Your task to perform on an android device: Open Android settings Image 0: 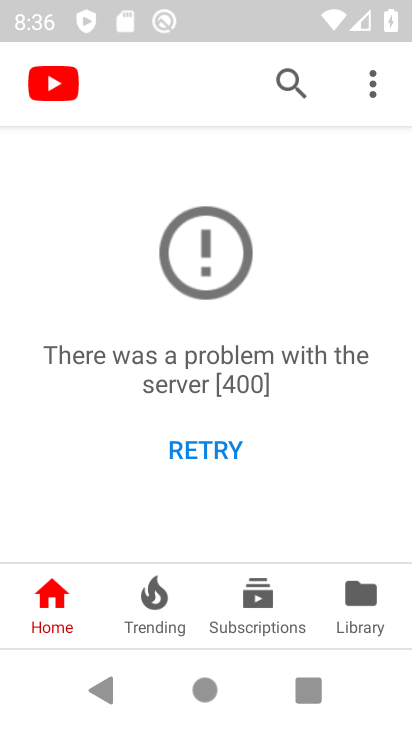
Step 0: press home button
Your task to perform on an android device: Open Android settings Image 1: 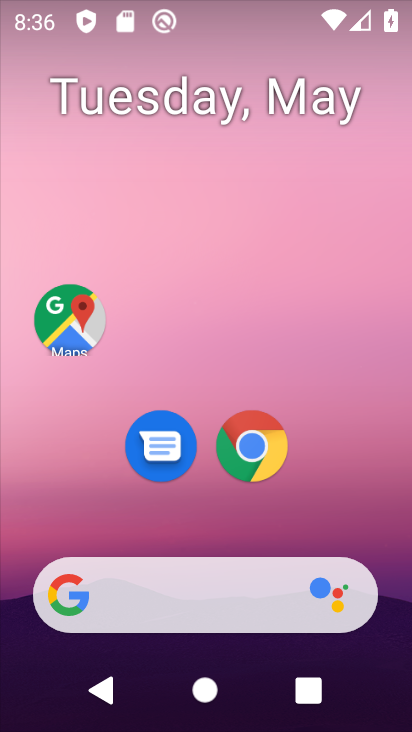
Step 1: drag from (379, 564) to (366, 259)
Your task to perform on an android device: Open Android settings Image 2: 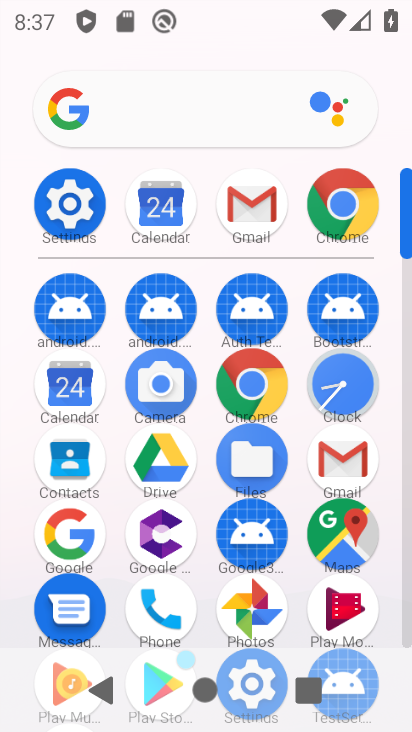
Step 2: drag from (386, 576) to (403, 305)
Your task to perform on an android device: Open Android settings Image 3: 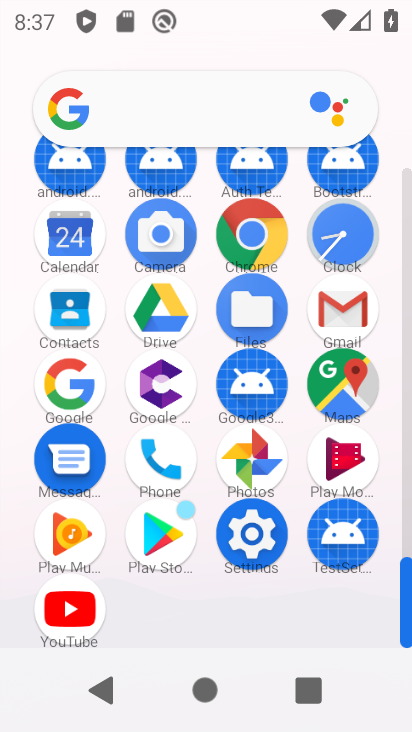
Step 3: click (235, 566)
Your task to perform on an android device: Open Android settings Image 4: 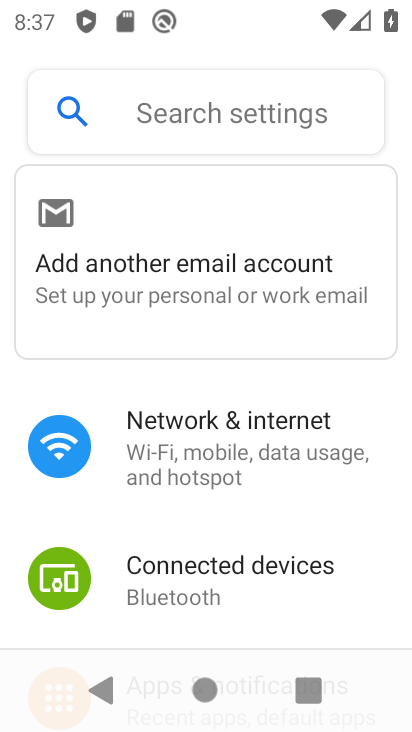
Step 4: drag from (349, 587) to (374, 471)
Your task to perform on an android device: Open Android settings Image 5: 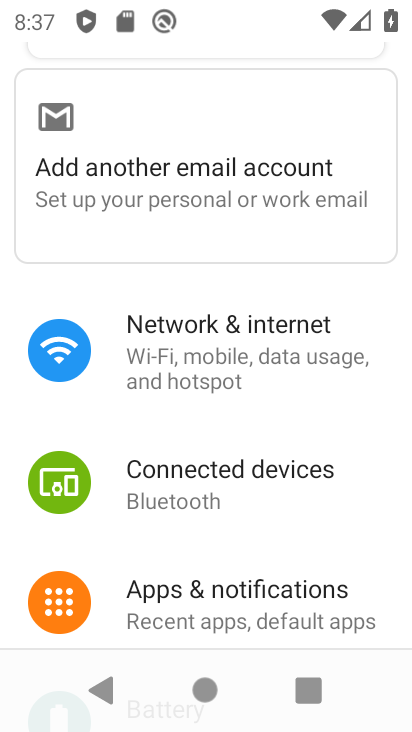
Step 5: drag from (379, 589) to (391, 461)
Your task to perform on an android device: Open Android settings Image 6: 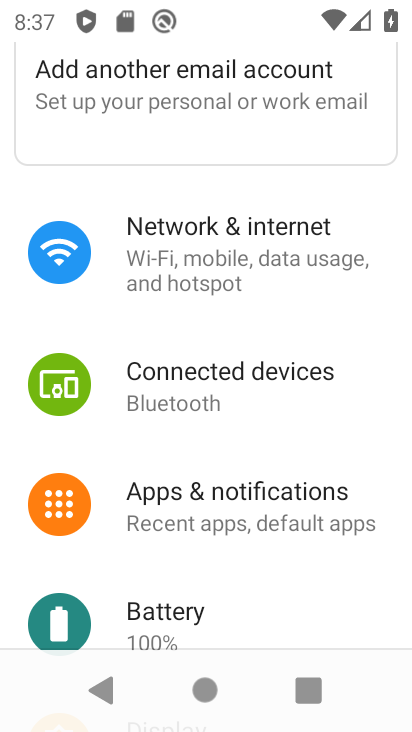
Step 6: drag from (386, 569) to (378, 440)
Your task to perform on an android device: Open Android settings Image 7: 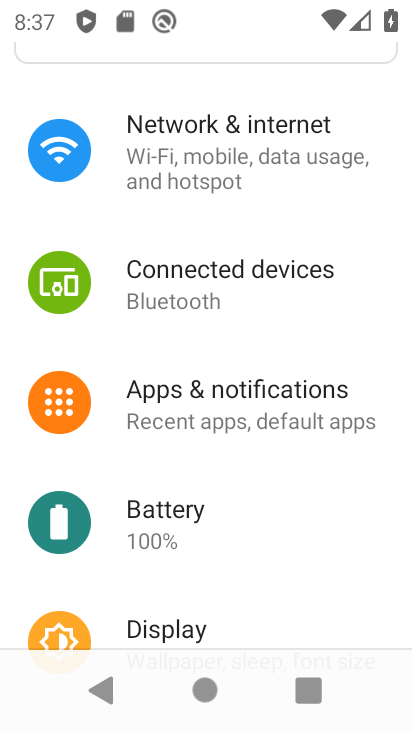
Step 7: drag from (355, 581) to (355, 484)
Your task to perform on an android device: Open Android settings Image 8: 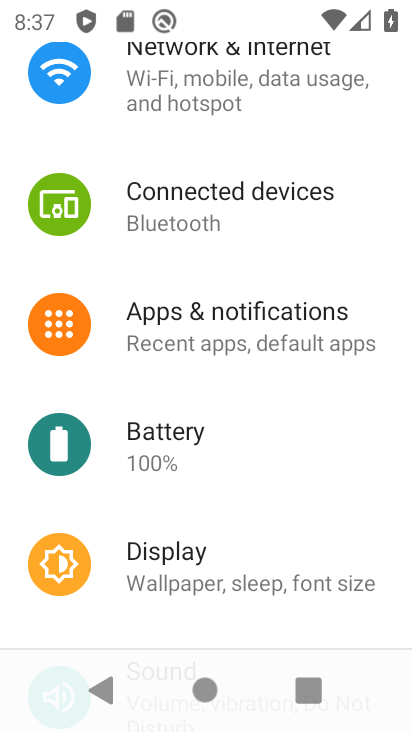
Step 8: drag from (357, 607) to (364, 468)
Your task to perform on an android device: Open Android settings Image 9: 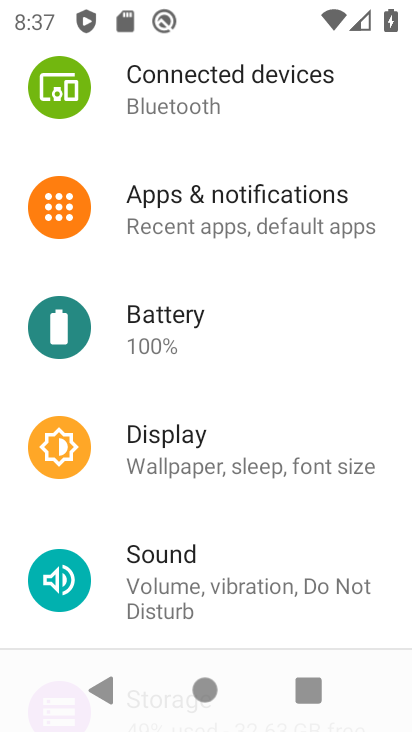
Step 9: drag from (382, 614) to (382, 510)
Your task to perform on an android device: Open Android settings Image 10: 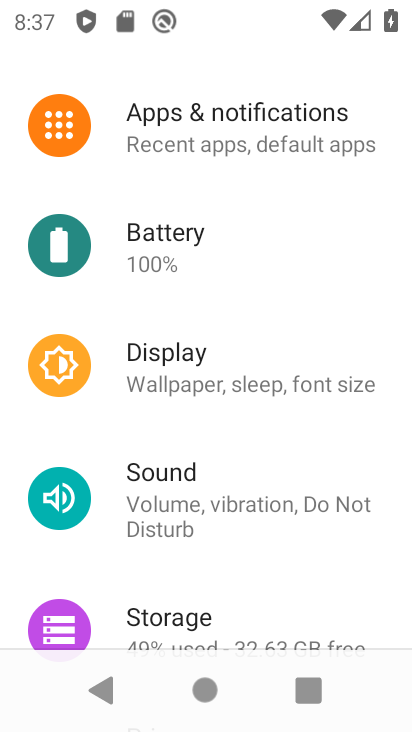
Step 10: drag from (353, 599) to (353, 480)
Your task to perform on an android device: Open Android settings Image 11: 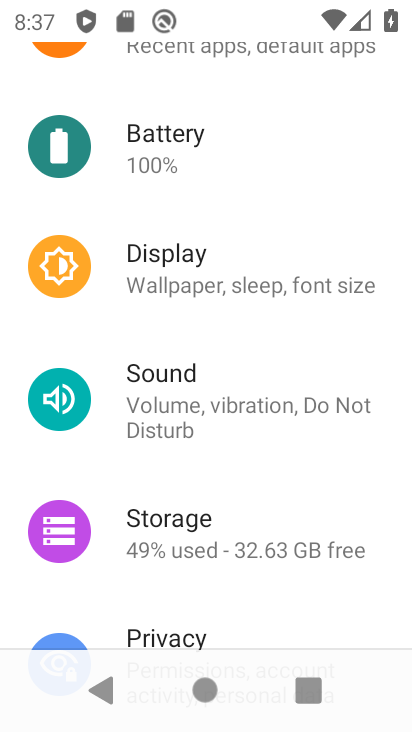
Step 11: drag from (376, 623) to (386, 508)
Your task to perform on an android device: Open Android settings Image 12: 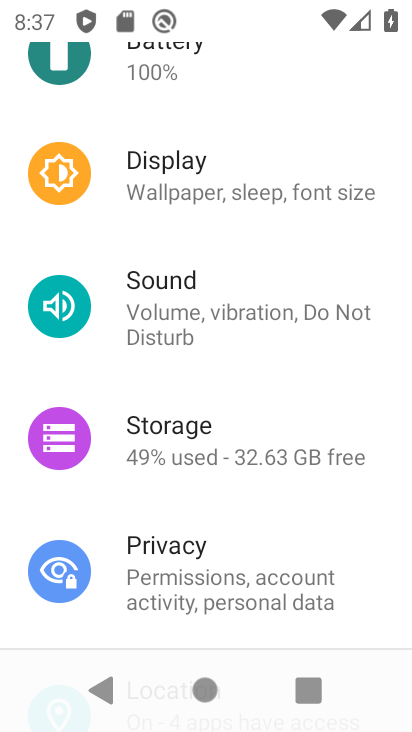
Step 12: drag from (353, 533) to (371, 434)
Your task to perform on an android device: Open Android settings Image 13: 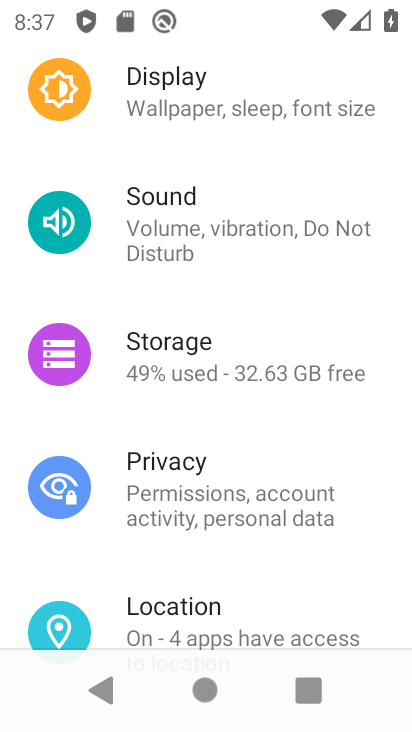
Step 13: drag from (368, 561) to (381, 466)
Your task to perform on an android device: Open Android settings Image 14: 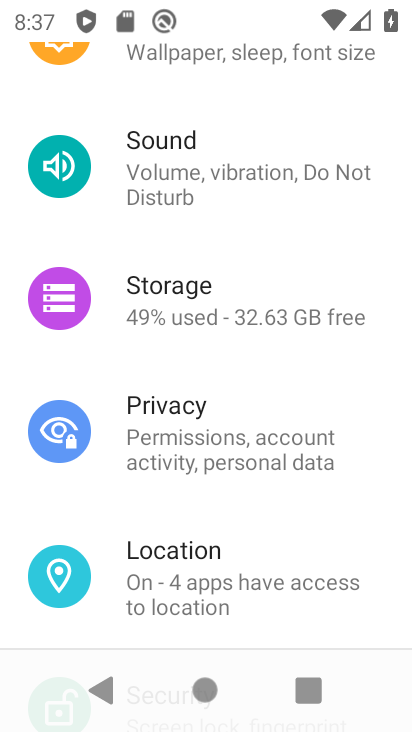
Step 14: drag from (375, 571) to (367, 479)
Your task to perform on an android device: Open Android settings Image 15: 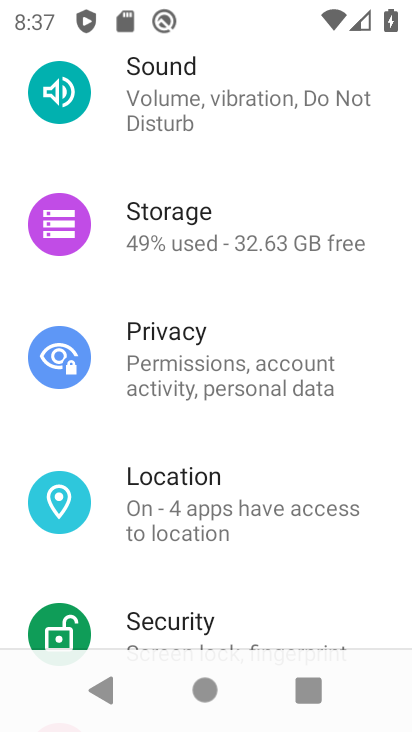
Step 15: drag from (361, 585) to (364, 497)
Your task to perform on an android device: Open Android settings Image 16: 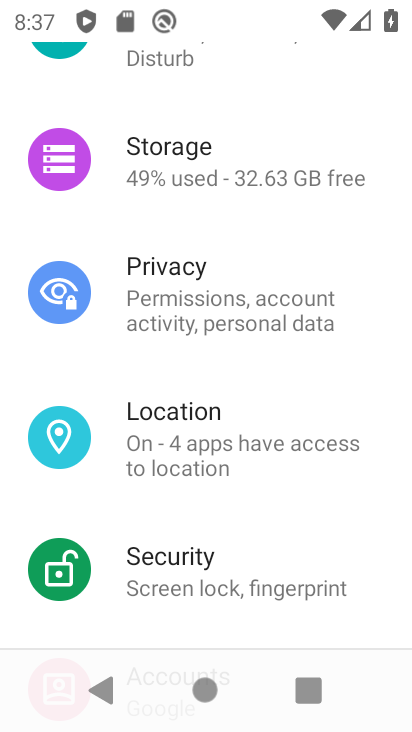
Step 16: drag from (366, 609) to (374, 499)
Your task to perform on an android device: Open Android settings Image 17: 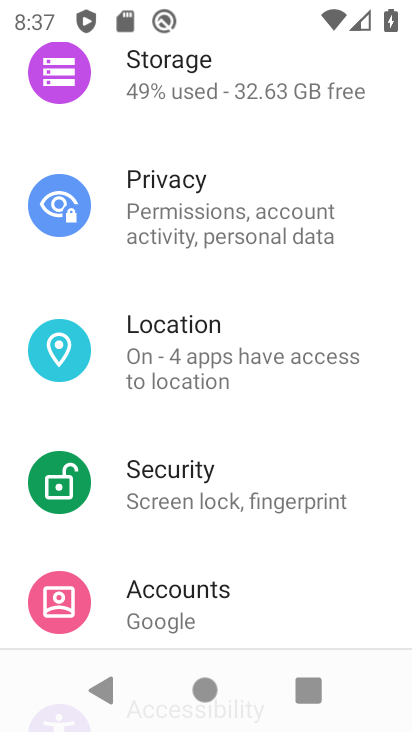
Step 17: drag from (362, 590) to (374, 479)
Your task to perform on an android device: Open Android settings Image 18: 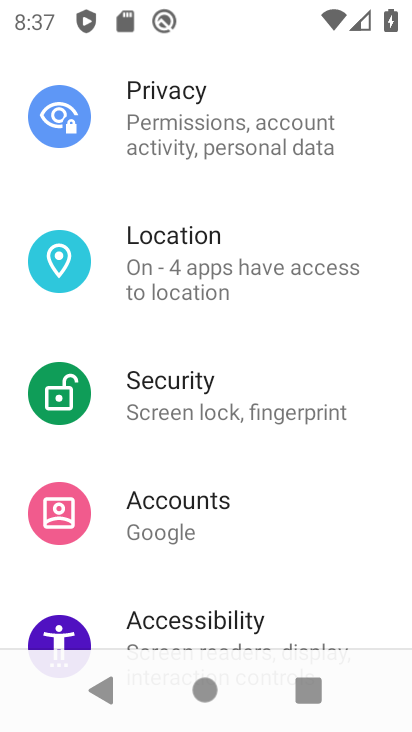
Step 18: drag from (357, 583) to (363, 477)
Your task to perform on an android device: Open Android settings Image 19: 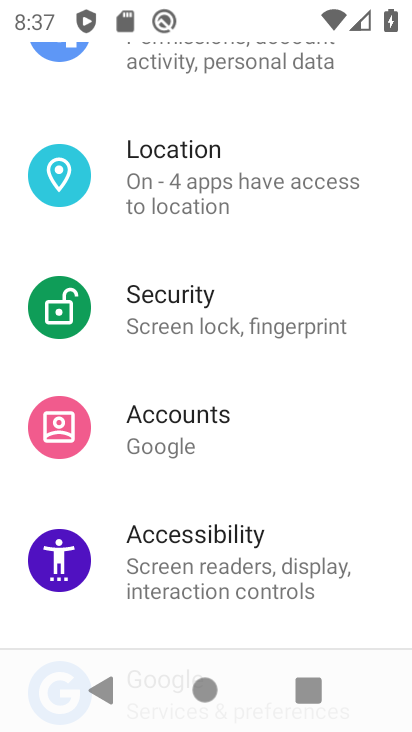
Step 19: drag from (366, 608) to (369, 493)
Your task to perform on an android device: Open Android settings Image 20: 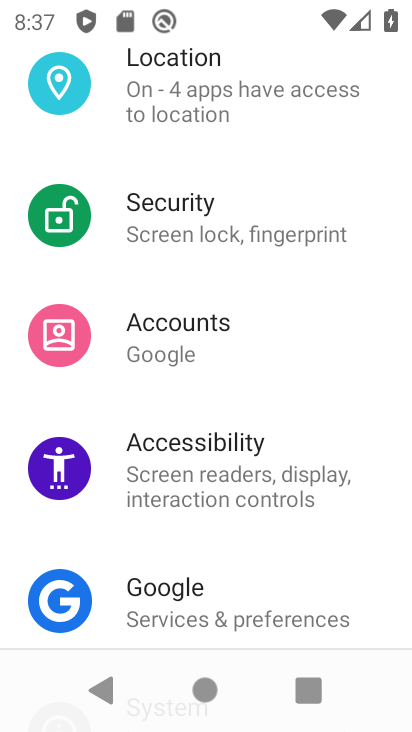
Step 20: drag from (356, 570) to (366, 456)
Your task to perform on an android device: Open Android settings Image 21: 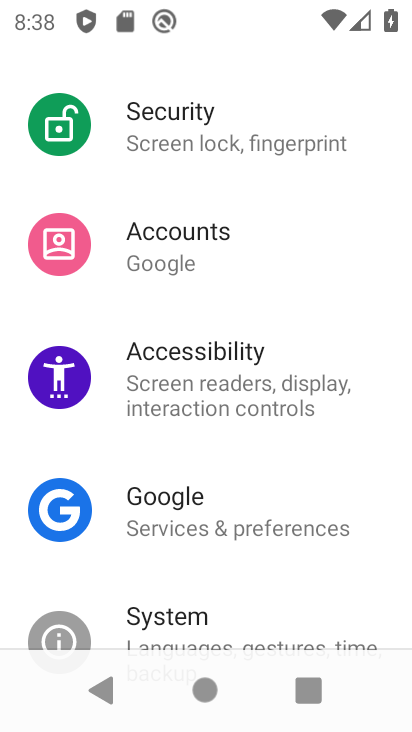
Step 21: drag from (362, 582) to (370, 442)
Your task to perform on an android device: Open Android settings Image 22: 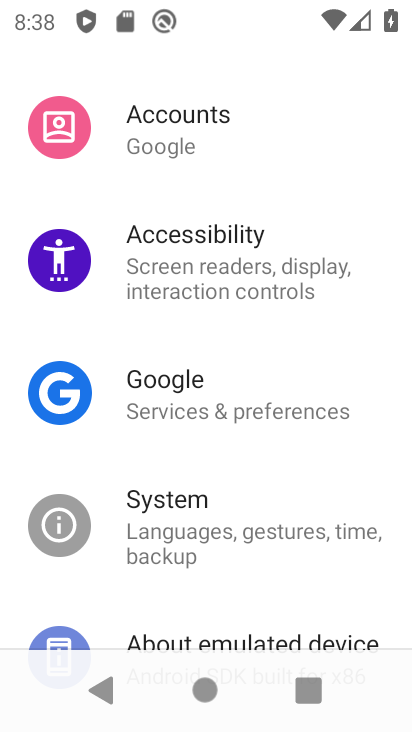
Step 22: click (346, 550)
Your task to perform on an android device: Open Android settings Image 23: 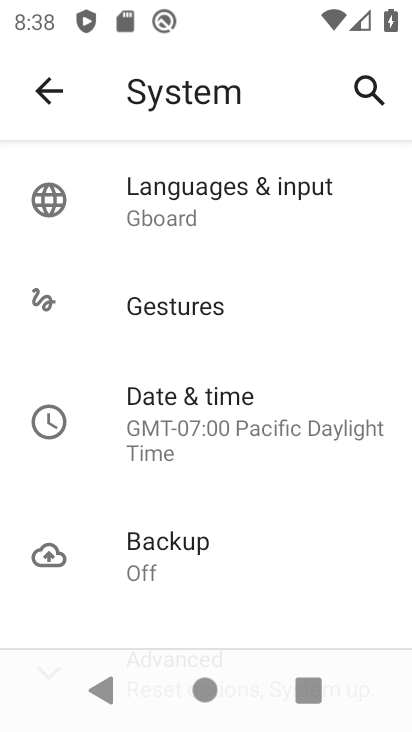
Step 23: drag from (346, 550) to (366, 421)
Your task to perform on an android device: Open Android settings Image 24: 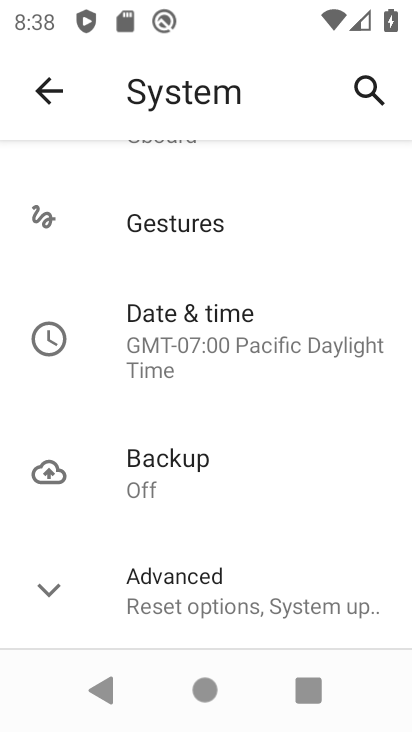
Step 24: click (343, 602)
Your task to perform on an android device: Open Android settings Image 25: 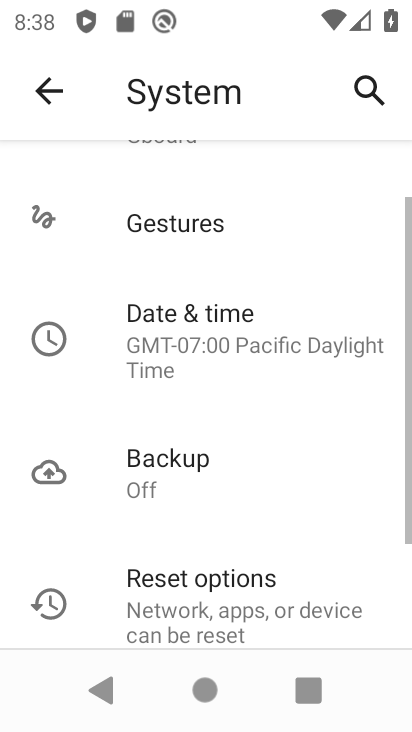
Step 25: task complete